Your task to perform on an android device: Open Chrome and go to settings Image 0: 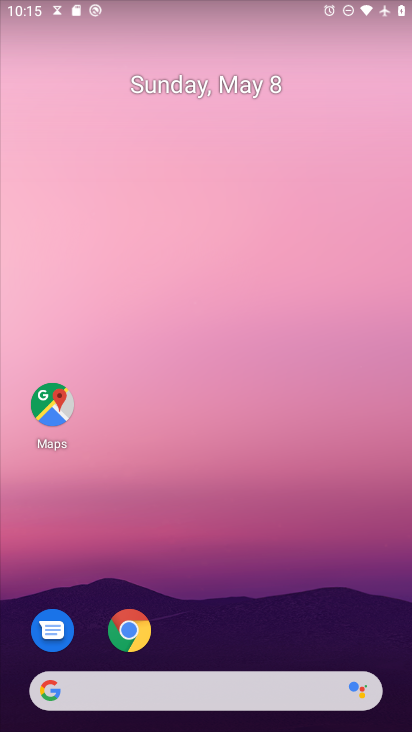
Step 0: click (134, 626)
Your task to perform on an android device: Open Chrome and go to settings Image 1: 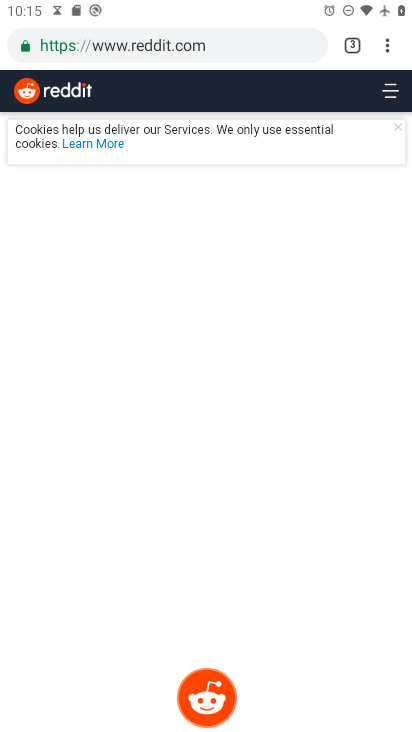
Step 1: task complete